Your task to perform on an android device: choose inbox layout in the gmail app Image 0: 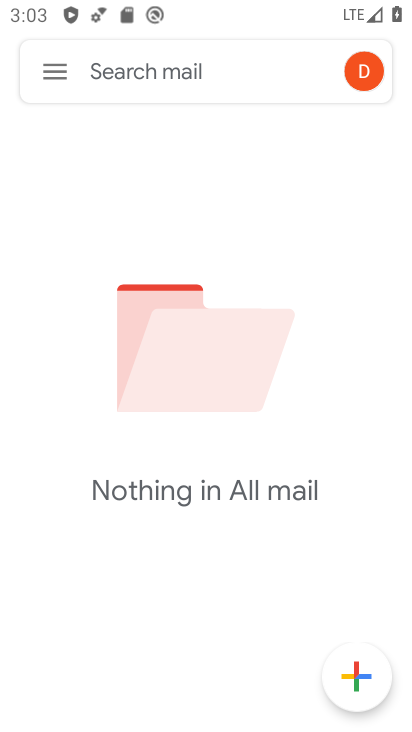
Step 0: click (56, 72)
Your task to perform on an android device: choose inbox layout in the gmail app Image 1: 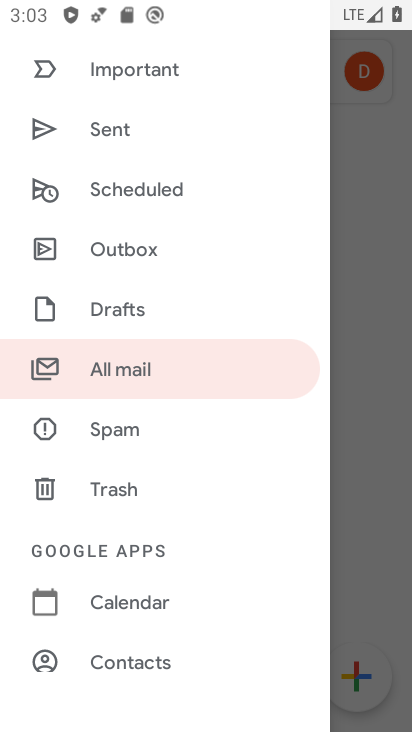
Step 1: drag from (83, 667) to (131, 381)
Your task to perform on an android device: choose inbox layout in the gmail app Image 2: 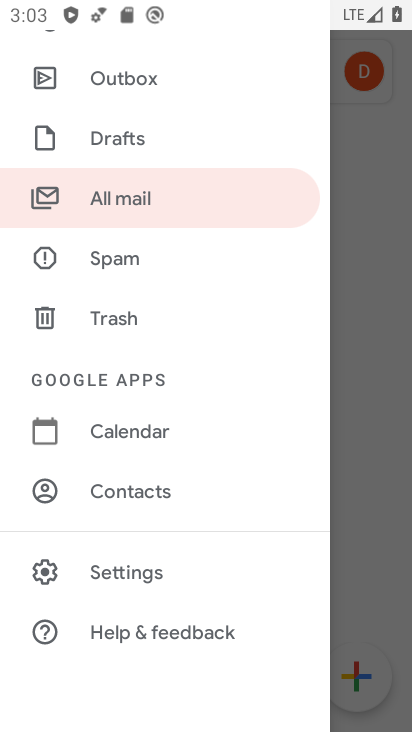
Step 2: click (161, 572)
Your task to perform on an android device: choose inbox layout in the gmail app Image 3: 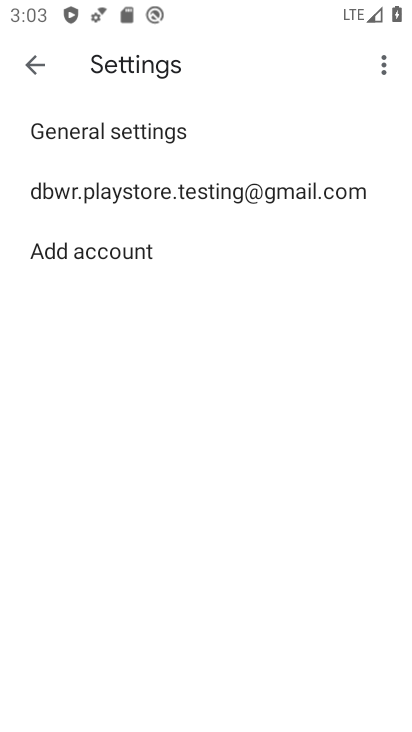
Step 3: click (269, 203)
Your task to perform on an android device: choose inbox layout in the gmail app Image 4: 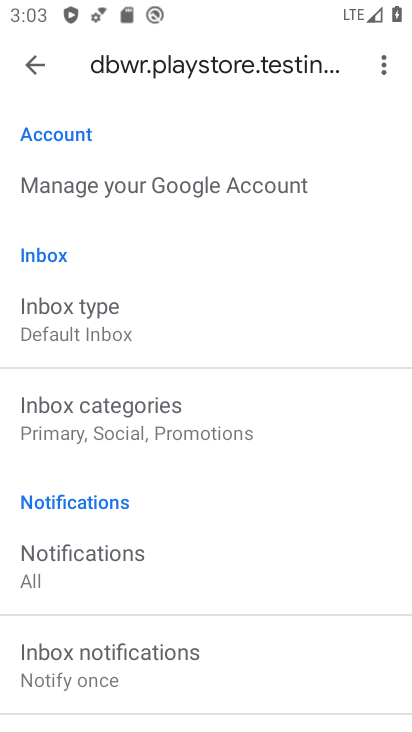
Step 4: click (60, 330)
Your task to perform on an android device: choose inbox layout in the gmail app Image 5: 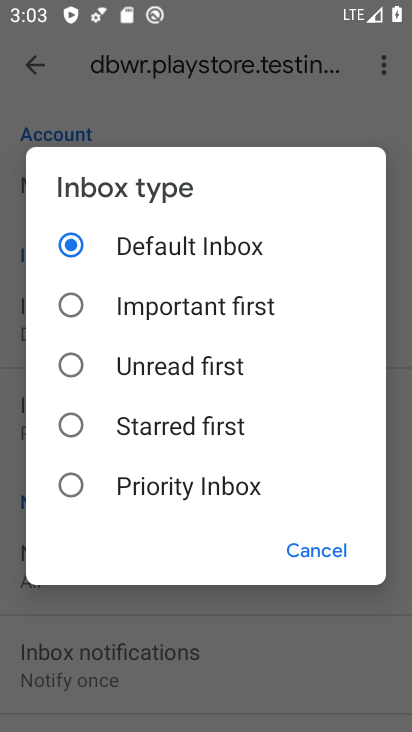
Step 5: click (149, 360)
Your task to perform on an android device: choose inbox layout in the gmail app Image 6: 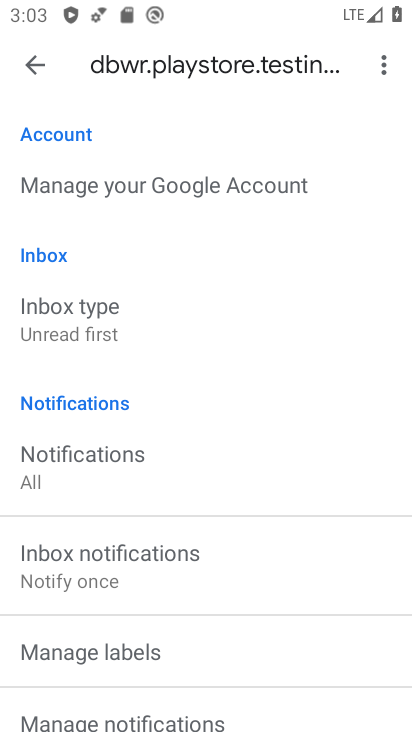
Step 6: task complete